Your task to perform on an android device: Is it going to rain this weekend? Image 0: 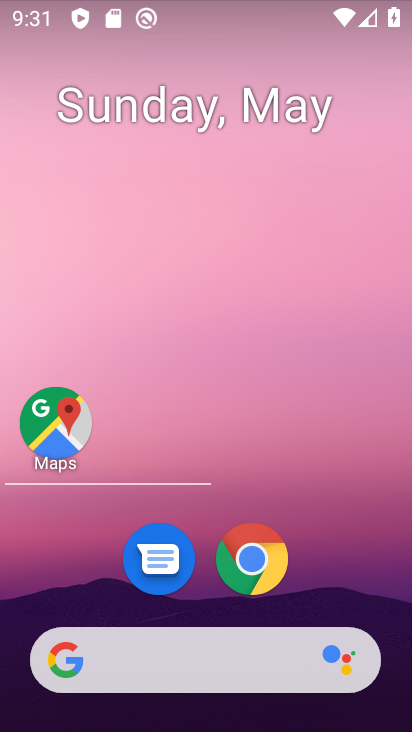
Step 0: press home button
Your task to perform on an android device: Is it going to rain this weekend? Image 1: 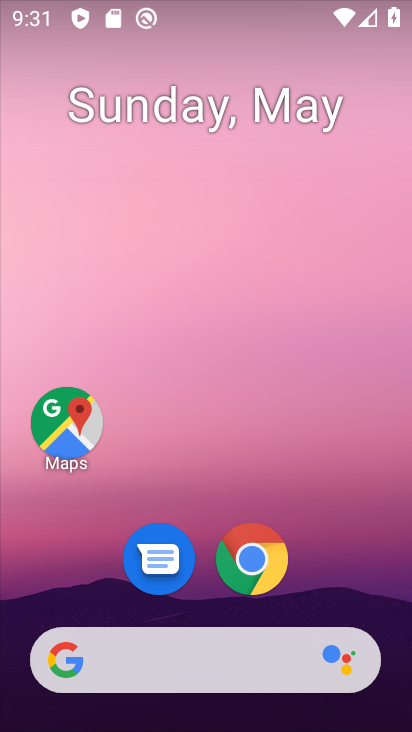
Step 1: click (53, 671)
Your task to perform on an android device: Is it going to rain this weekend? Image 2: 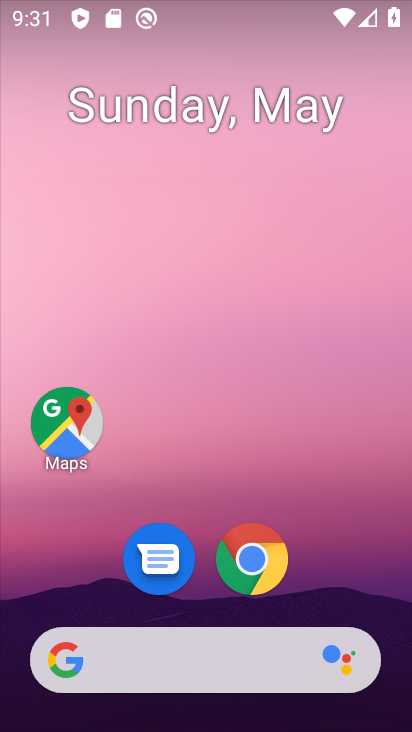
Step 2: type "rain this weekend?"
Your task to perform on an android device: Is it going to rain this weekend? Image 3: 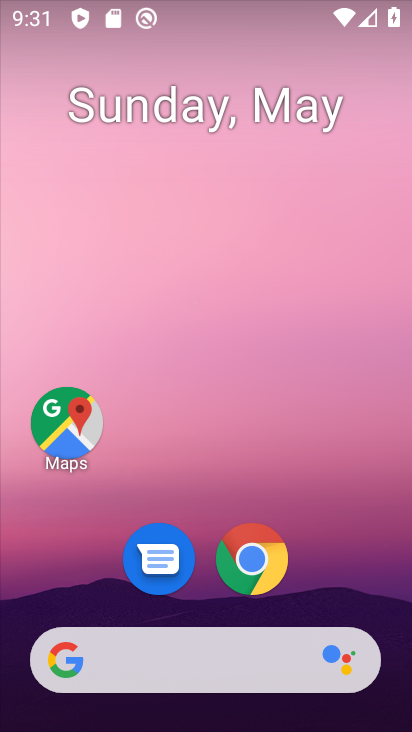
Step 3: click (64, 666)
Your task to perform on an android device: Is it going to rain this weekend? Image 4: 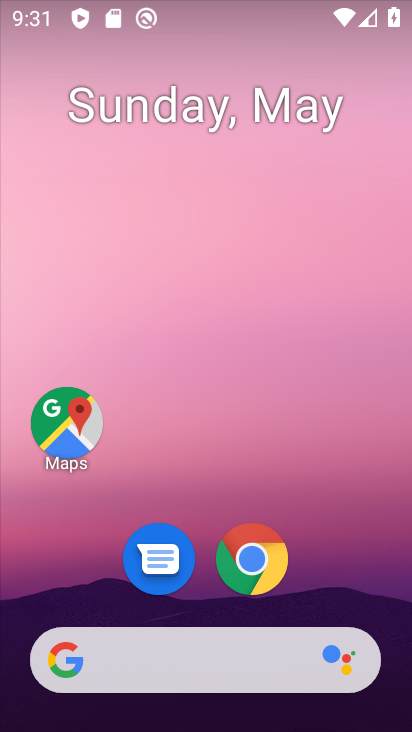
Step 4: click (55, 664)
Your task to perform on an android device: Is it going to rain this weekend? Image 5: 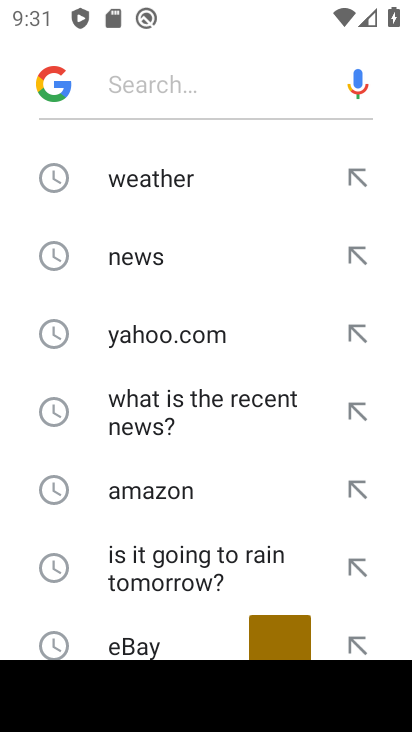
Step 5: type "rain this weekend?"
Your task to perform on an android device: Is it going to rain this weekend? Image 6: 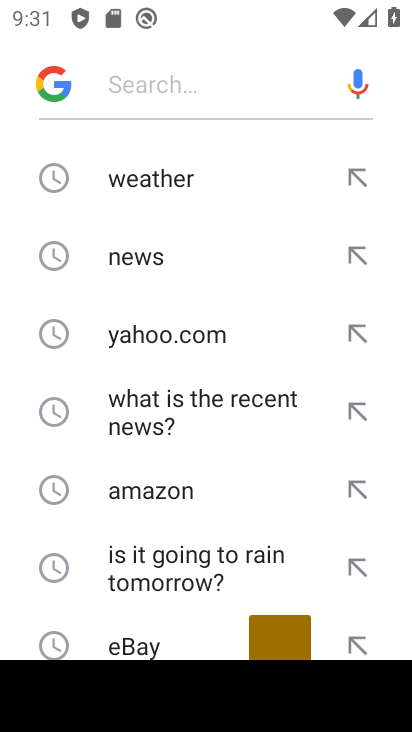
Step 6: click (149, 83)
Your task to perform on an android device: Is it going to rain this weekend? Image 7: 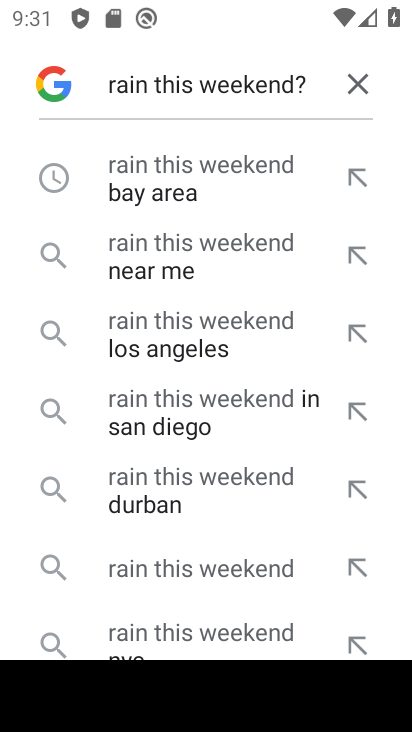
Step 7: click (206, 575)
Your task to perform on an android device: Is it going to rain this weekend? Image 8: 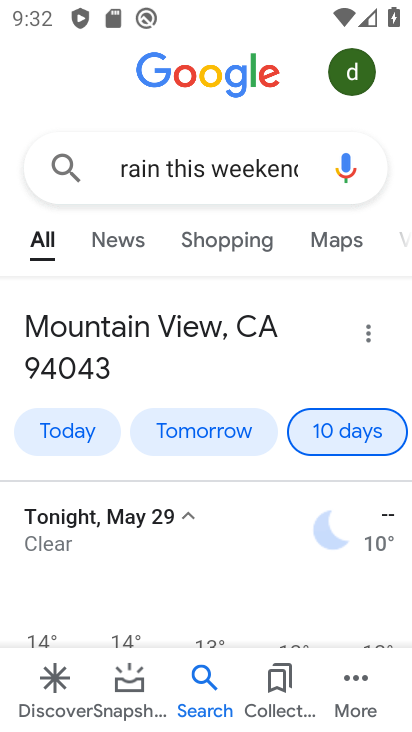
Step 8: task complete